Your task to perform on an android device: turn off picture-in-picture Image 0: 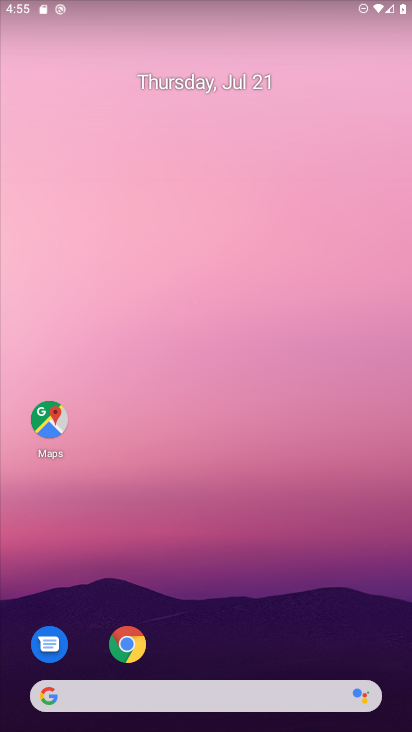
Step 0: drag from (236, 446) to (296, 197)
Your task to perform on an android device: turn off picture-in-picture Image 1: 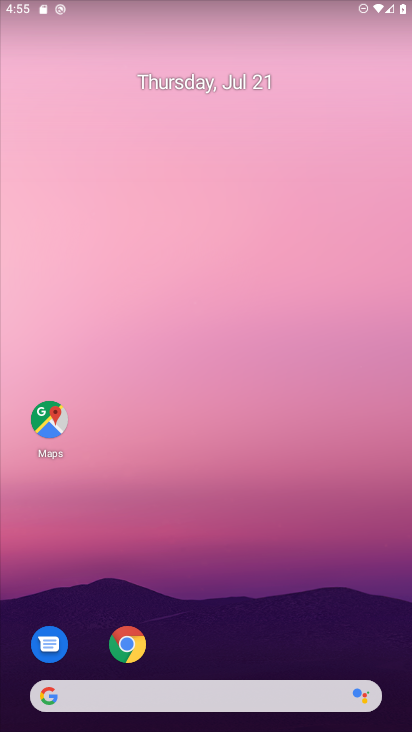
Step 1: drag from (196, 414) to (263, 56)
Your task to perform on an android device: turn off picture-in-picture Image 2: 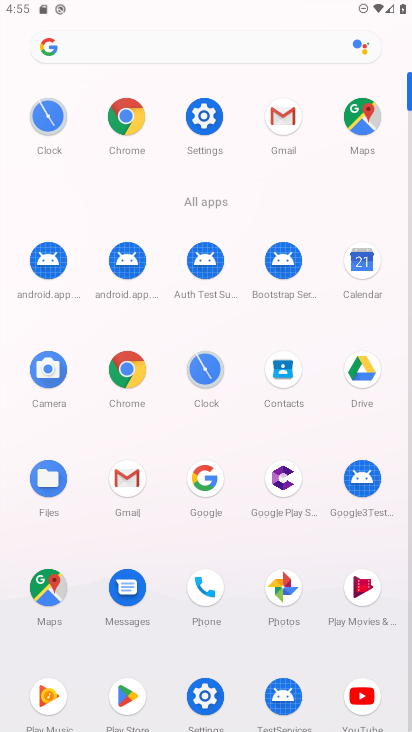
Step 2: click (204, 119)
Your task to perform on an android device: turn off picture-in-picture Image 3: 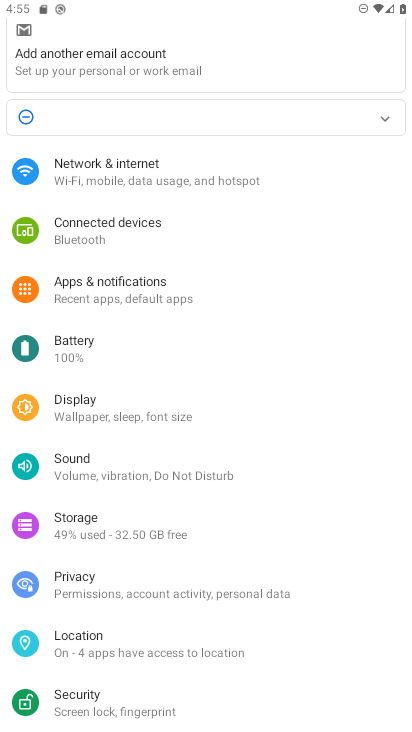
Step 3: click (92, 284)
Your task to perform on an android device: turn off picture-in-picture Image 4: 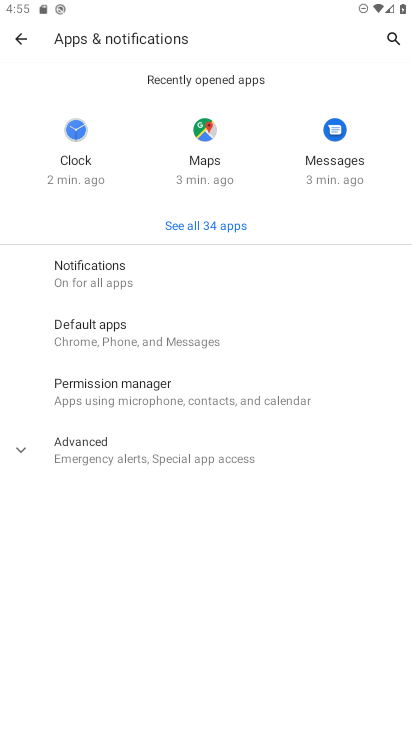
Step 4: click (71, 444)
Your task to perform on an android device: turn off picture-in-picture Image 5: 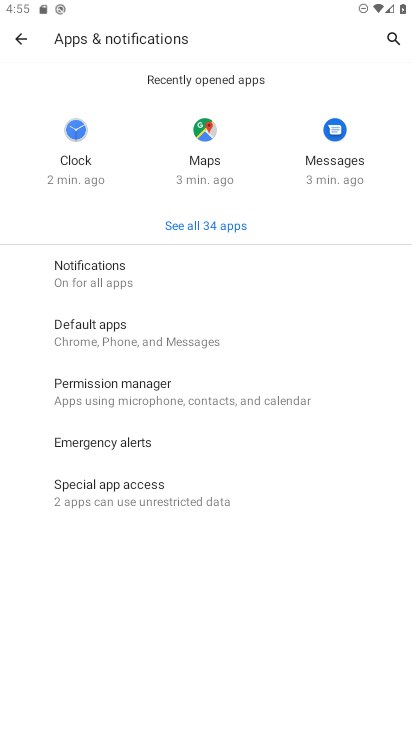
Step 5: click (105, 493)
Your task to perform on an android device: turn off picture-in-picture Image 6: 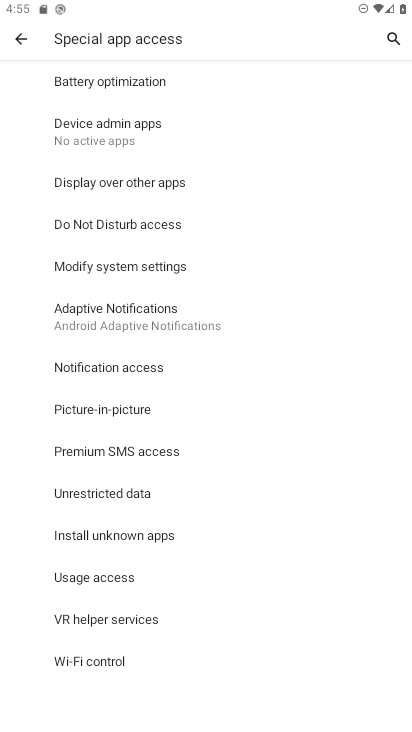
Step 6: click (131, 403)
Your task to perform on an android device: turn off picture-in-picture Image 7: 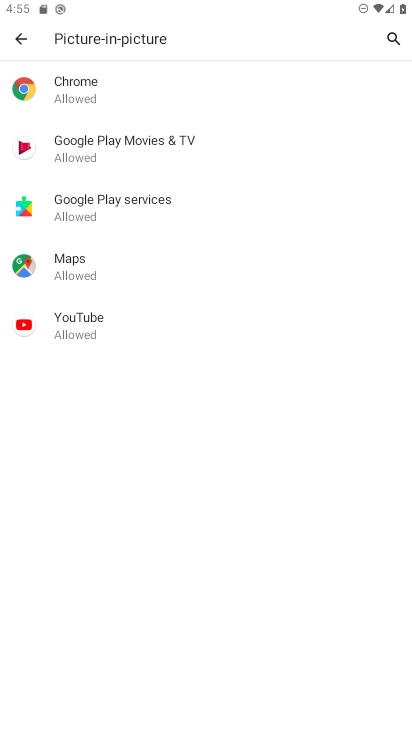
Step 7: click (82, 84)
Your task to perform on an android device: turn off picture-in-picture Image 8: 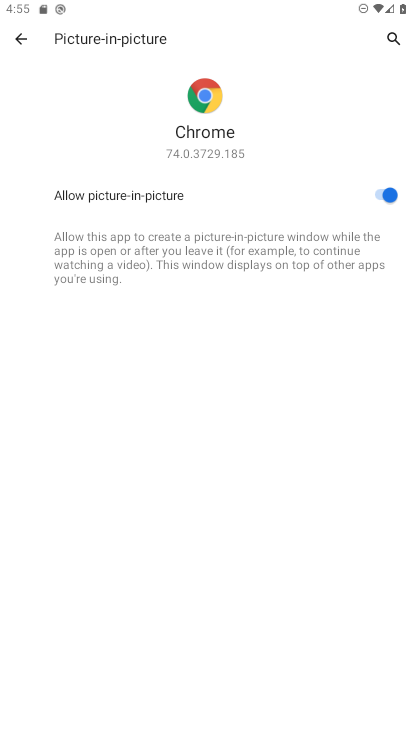
Step 8: click (376, 199)
Your task to perform on an android device: turn off picture-in-picture Image 9: 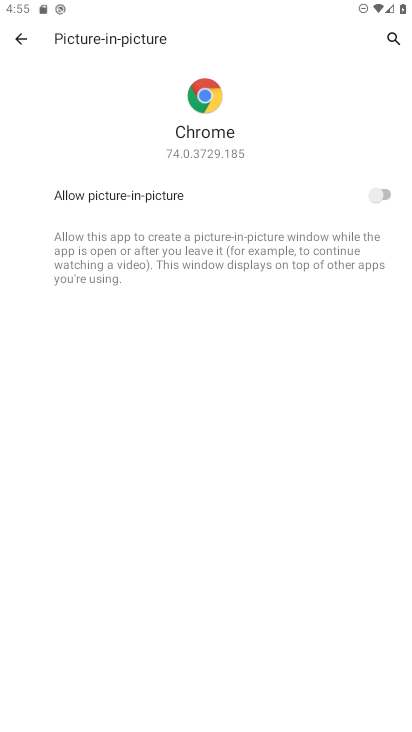
Step 9: task complete